Your task to perform on an android device: Go to location settings Image 0: 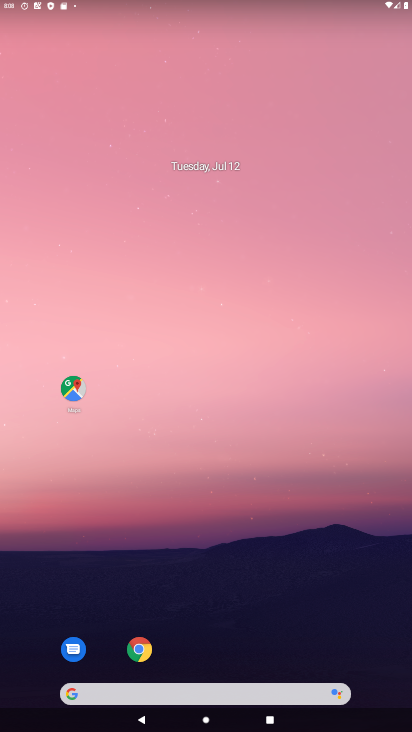
Step 0: drag from (222, 552) to (238, 14)
Your task to perform on an android device: Go to location settings Image 1: 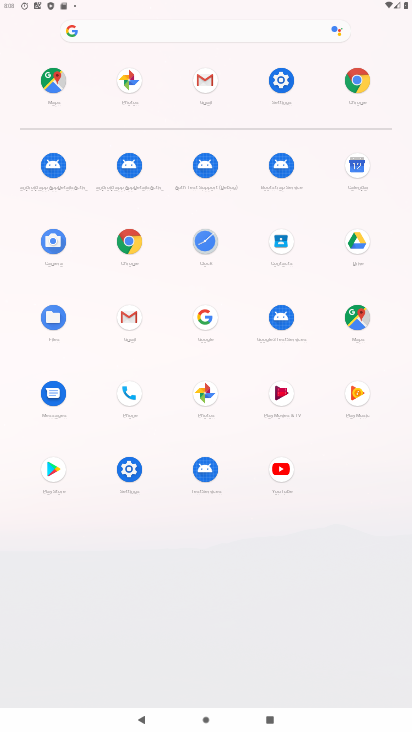
Step 1: click (287, 80)
Your task to perform on an android device: Go to location settings Image 2: 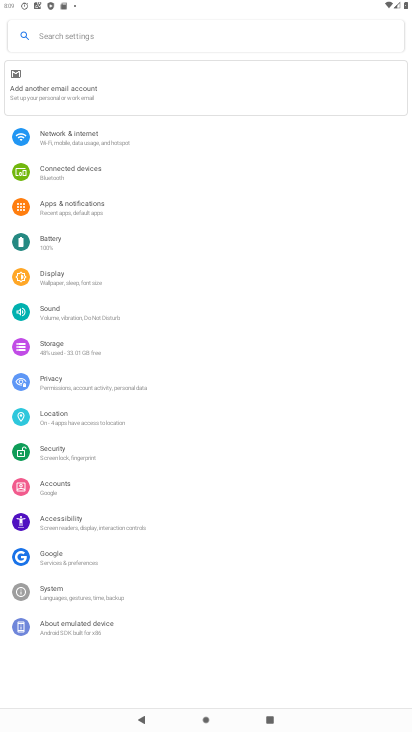
Step 2: click (71, 420)
Your task to perform on an android device: Go to location settings Image 3: 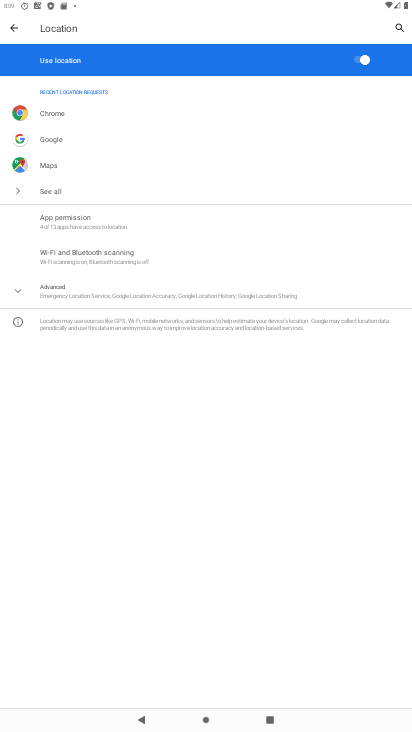
Step 3: task complete